Your task to perform on an android device: Open Youtube and go to "Your channel" Image 0: 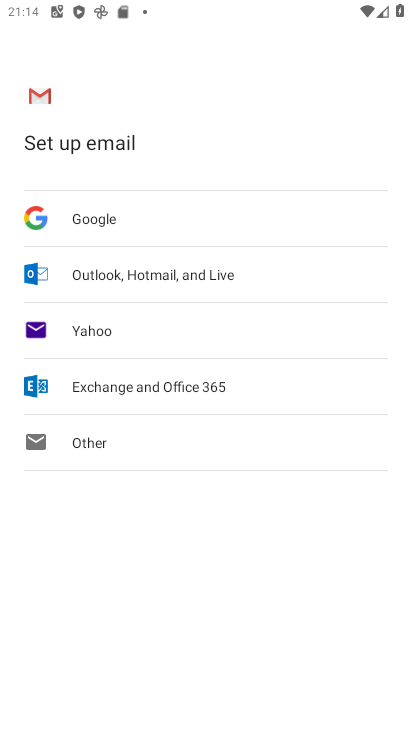
Step 0: press home button
Your task to perform on an android device: Open Youtube and go to "Your channel" Image 1: 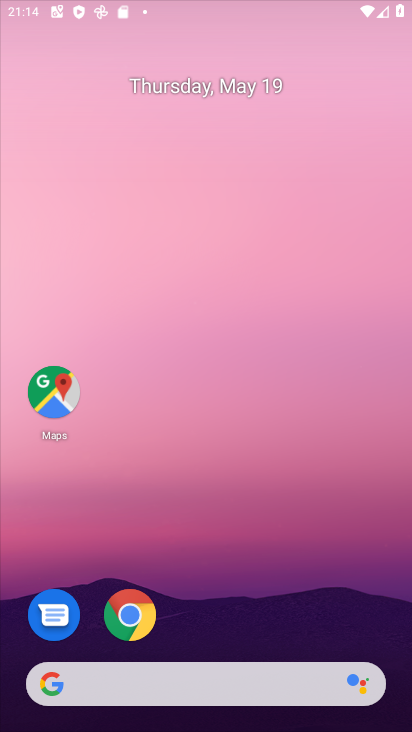
Step 1: drag from (267, 575) to (295, 13)
Your task to perform on an android device: Open Youtube and go to "Your channel" Image 2: 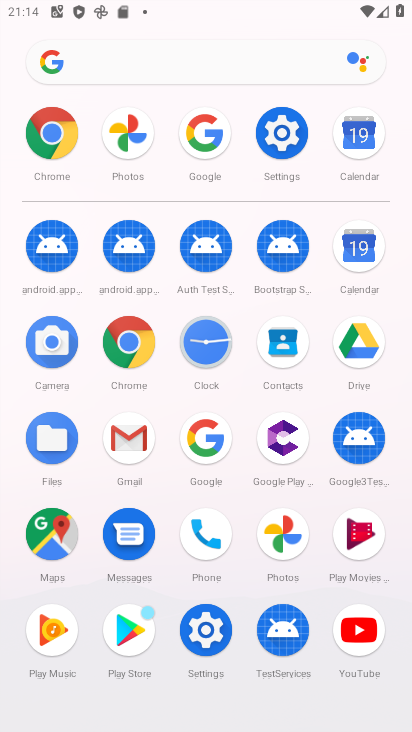
Step 2: click (370, 634)
Your task to perform on an android device: Open Youtube and go to "Your channel" Image 3: 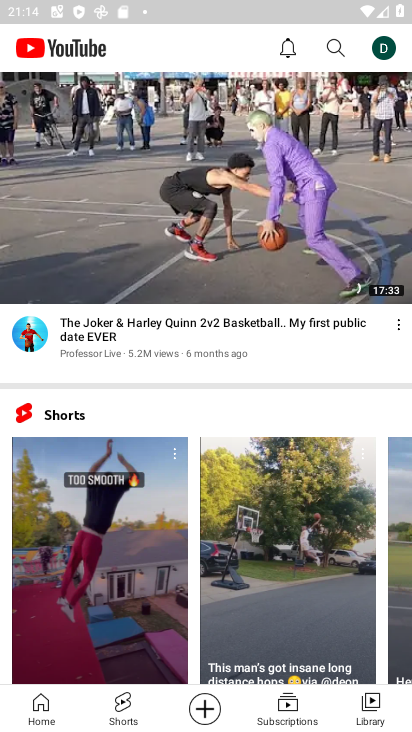
Step 3: click (380, 49)
Your task to perform on an android device: Open Youtube and go to "Your channel" Image 4: 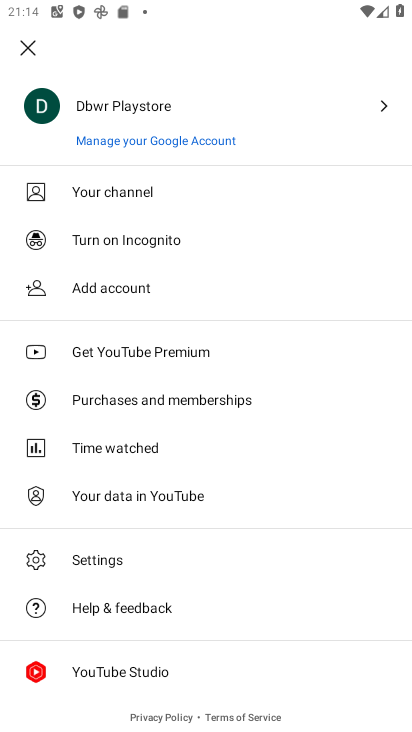
Step 4: click (128, 203)
Your task to perform on an android device: Open Youtube and go to "Your channel" Image 5: 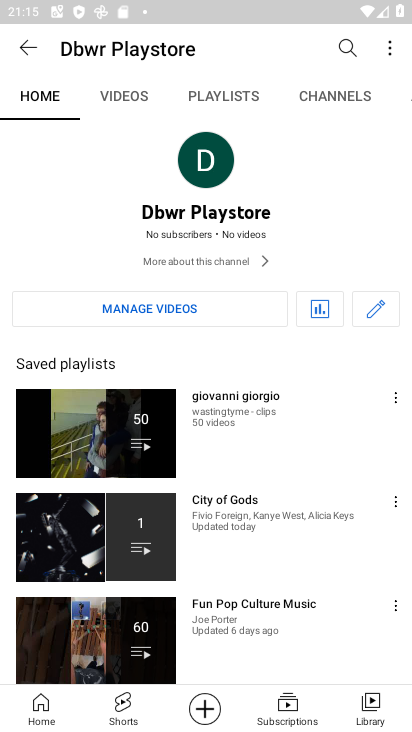
Step 5: task complete